Your task to perform on an android device: toggle pop-ups in chrome Image 0: 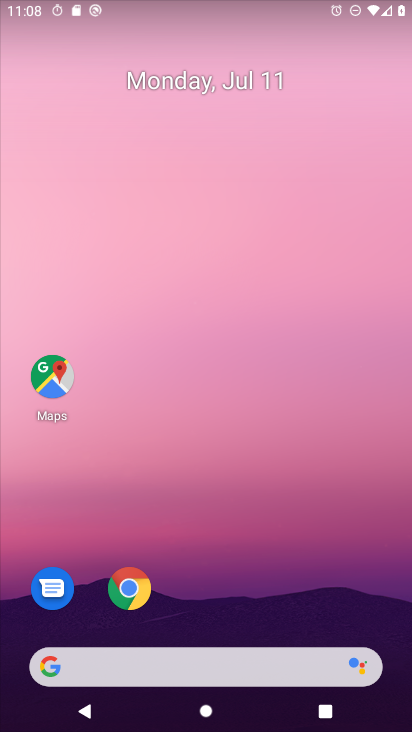
Step 0: click (142, 576)
Your task to perform on an android device: toggle pop-ups in chrome Image 1: 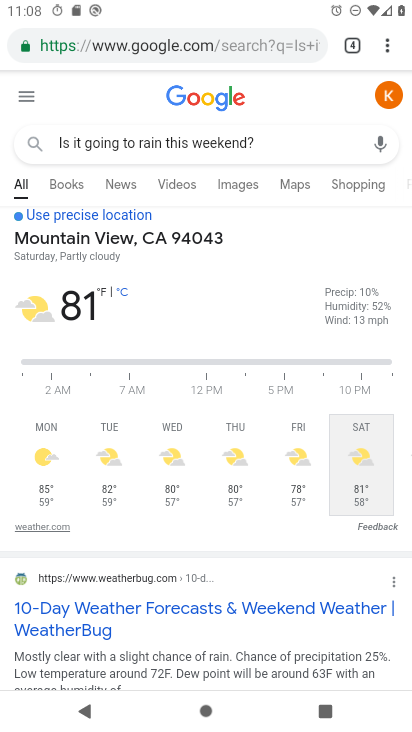
Step 1: click (387, 43)
Your task to perform on an android device: toggle pop-ups in chrome Image 2: 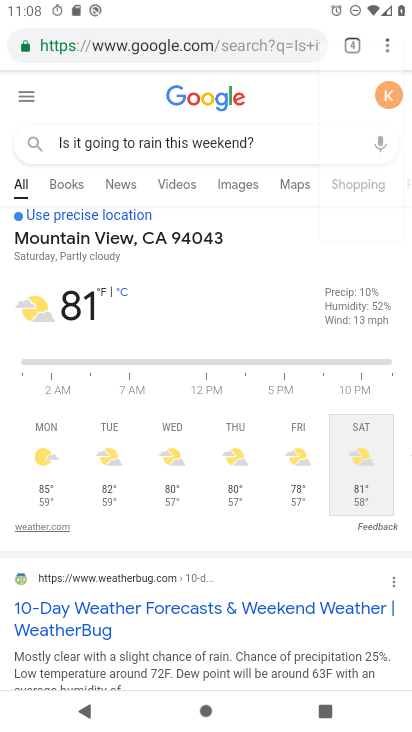
Step 2: click (387, 43)
Your task to perform on an android device: toggle pop-ups in chrome Image 3: 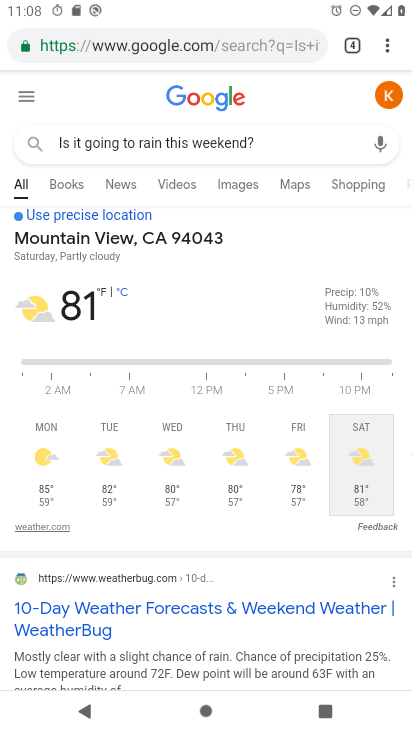
Step 3: drag from (387, 43) to (275, 239)
Your task to perform on an android device: toggle pop-ups in chrome Image 4: 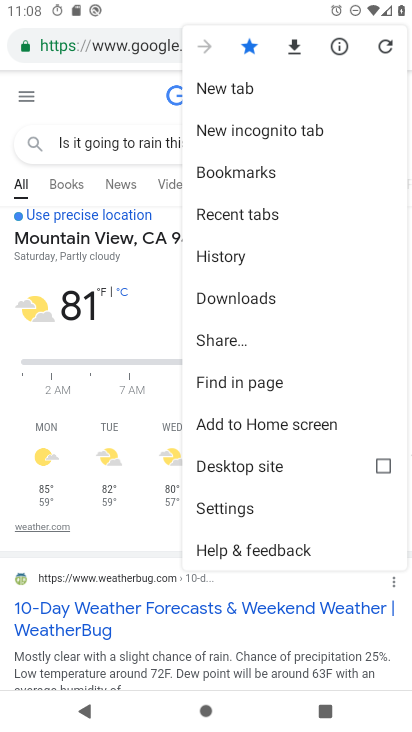
Step 4: press back button
Your task to perform on an android device: toggle pop-ups in chrome Image 5: 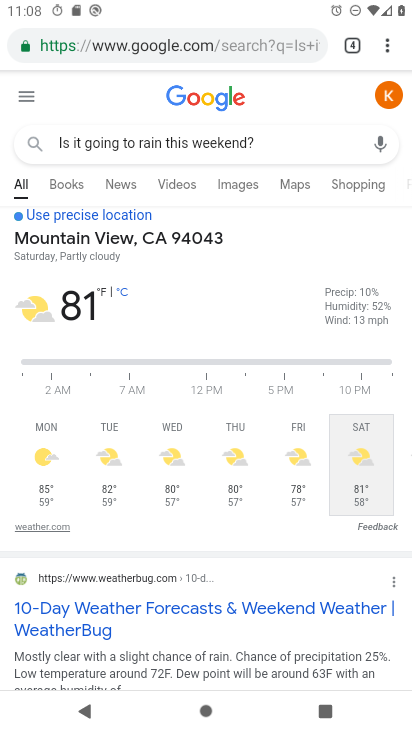
Step 5: drag from (386, 41) to (226, 504)
Your task to perform on an android device: toggle pop-ups in chrome Image 6: 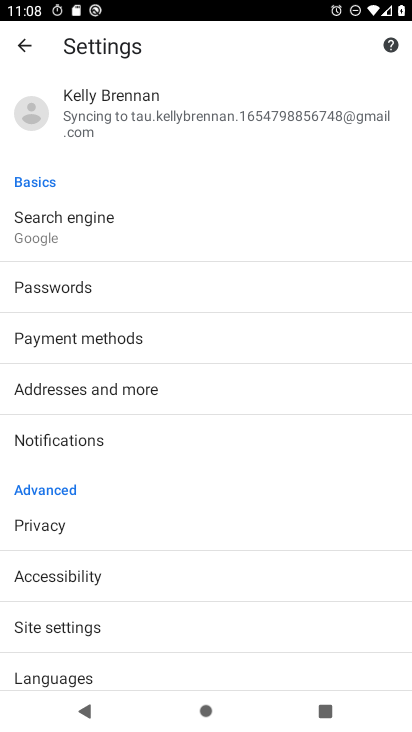
Step 6: click (39, 620)
Your task to perform on an android device: toggle pop-ups in chrome Image 7: 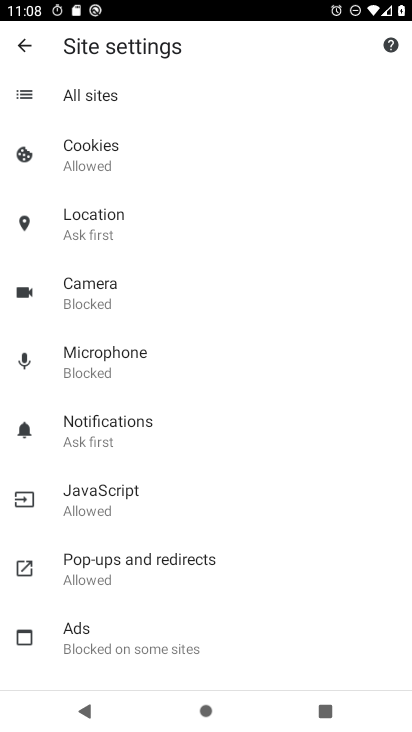
Step 7: click (106, 567)
Your task to perform on an android device: toggle pop-ups in chrome Image 8: 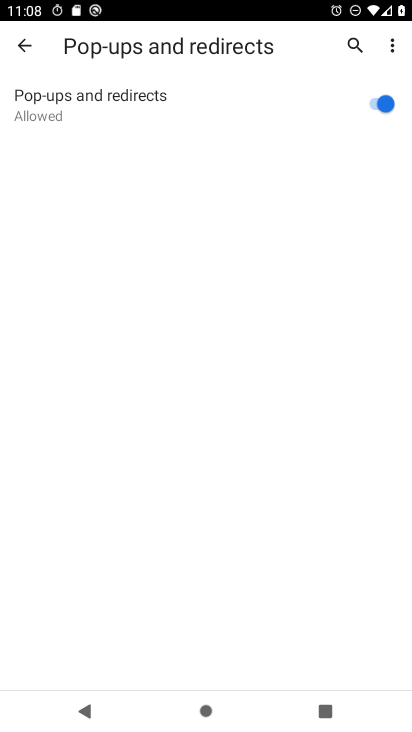
Step 8: click (380, 103)
Your task to perform on an android device: toggle pop-ups in chrome Image 9: 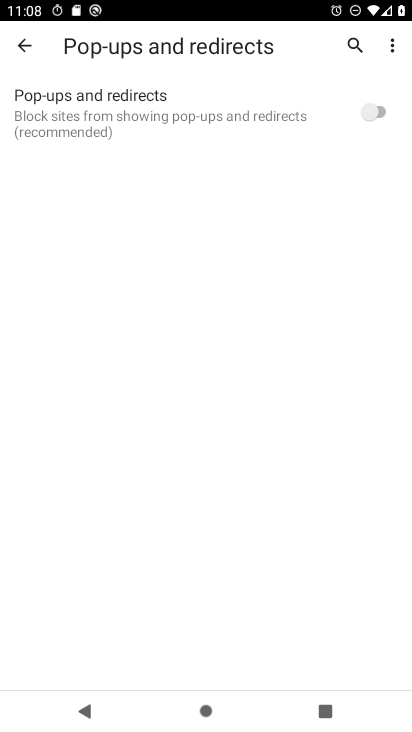
Step 9: task complete